Your task to perform on an android device: turn off picture-in-picture Image 0: 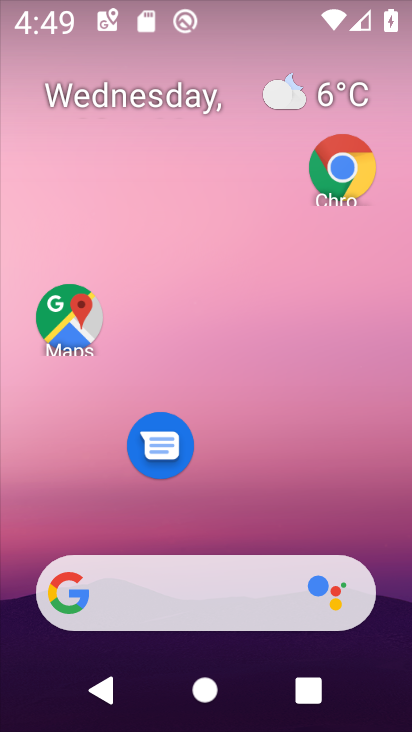
Step 0: click (356, 160)
Your task to perform on an android device: turn off picture-in-picture Image 1: 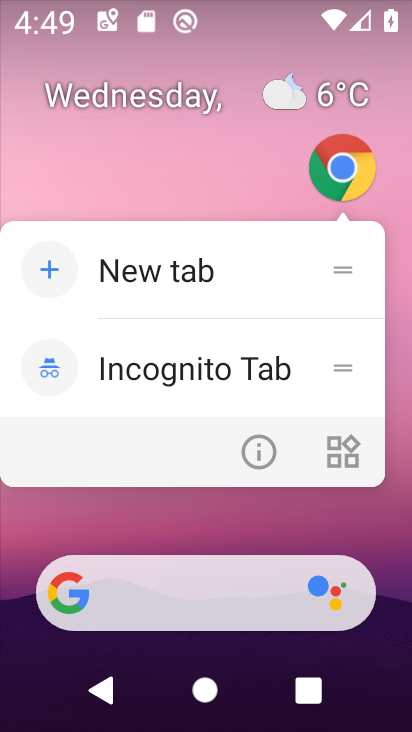
Step 1: click (269, 451)
Your task to perform on an android device: turn off picture-in-picture Image 2: 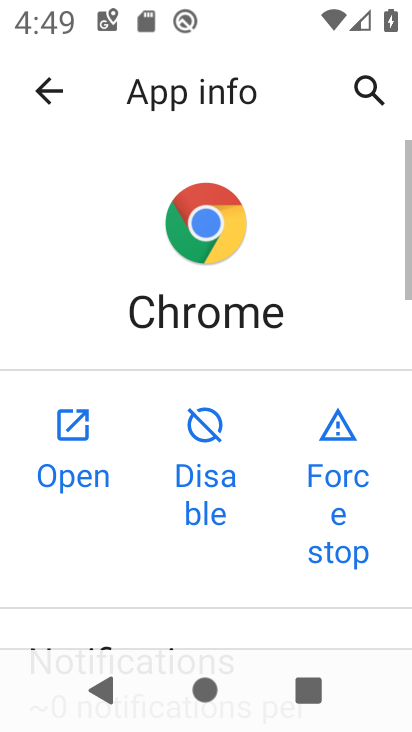
Step 2: drag from (154, 575) to (177, 83)
Your task to perform on an android device: turn off picture-in-picture Image 3: 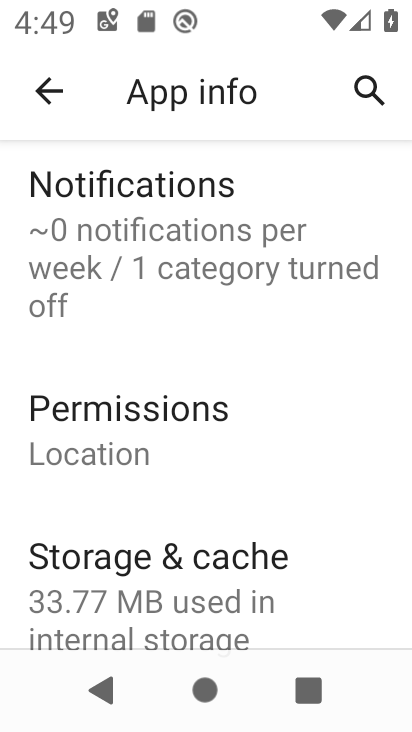
Step 3: drag from (212, 535) to (252, 33)
Your task to perform on an android device: turn off picture-in-picture Image 4: 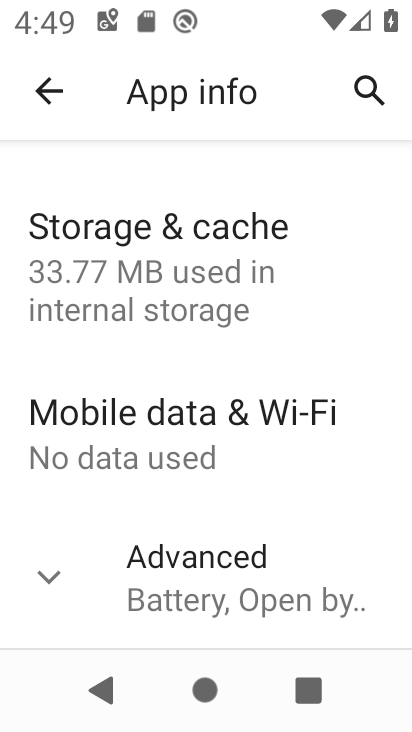
Step 4: click (250, 587)
Your task to perform on an android device: turn off picture-in-picture Image 5: 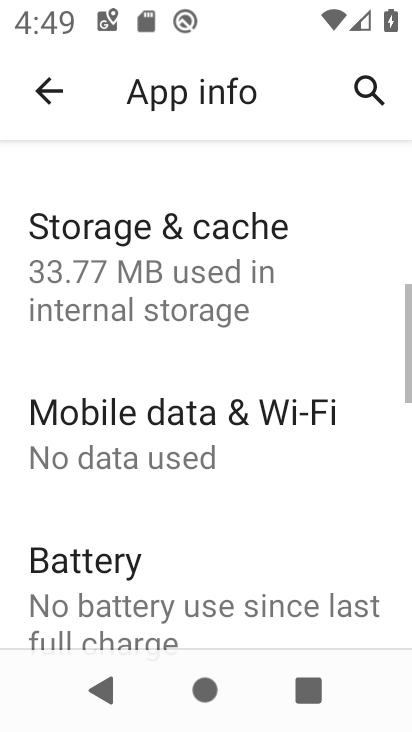
Step 5: drag from (217, 577) to (203, 131)
Your task to perform on an android device: turn off picture-in-picture Image 6: 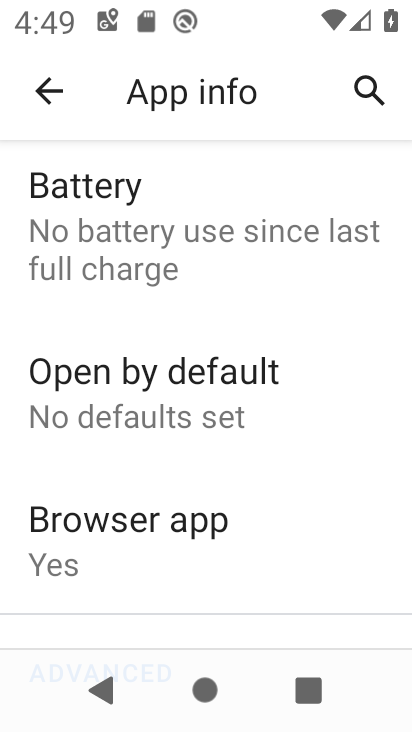
Step 6: drag from (196, 478) to (208, 147)
Your task to perform on an android device: turn off picture-in-picture Image 7: 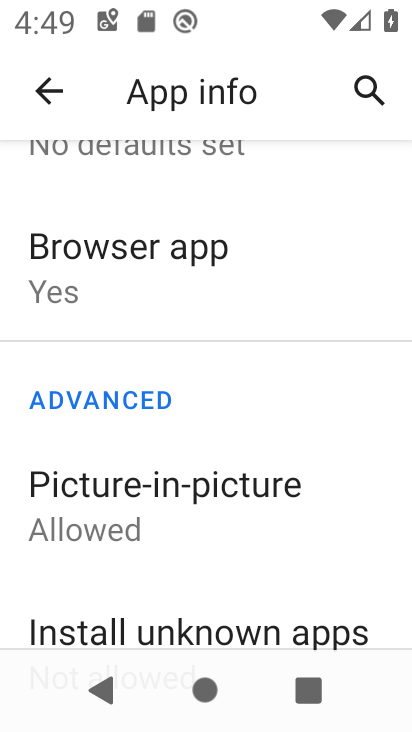
Step 7: click (196, 523)
Your task to perform on an android device: turn off picture-in-picture Image 8: 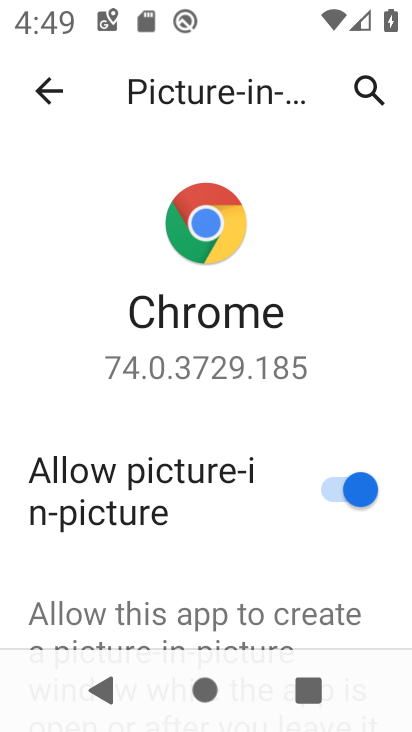
Step 8: click (326, 491)
Your task to perform on an android device: turn off picture-in-picture Image 9: 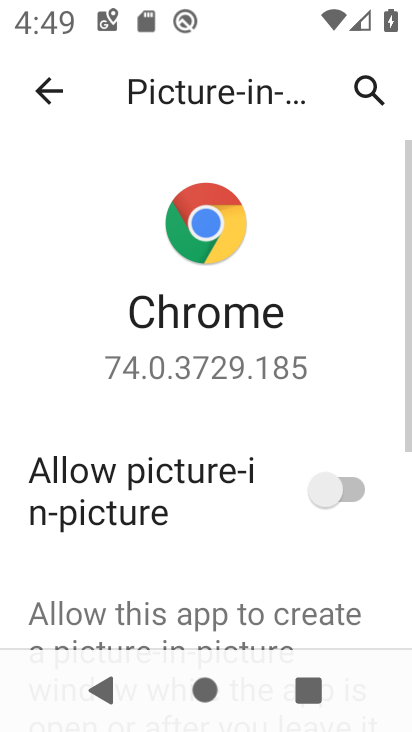
Step 9: task complete